Your task to perform on an android device: set an alarm Image 0: 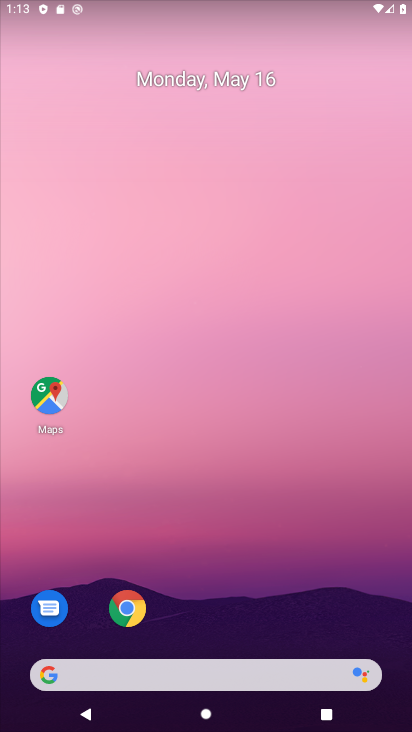
Step 0: drag from (219, 392) to (219, 130)
Your task to perform on an android device: set an alarm Image 1: 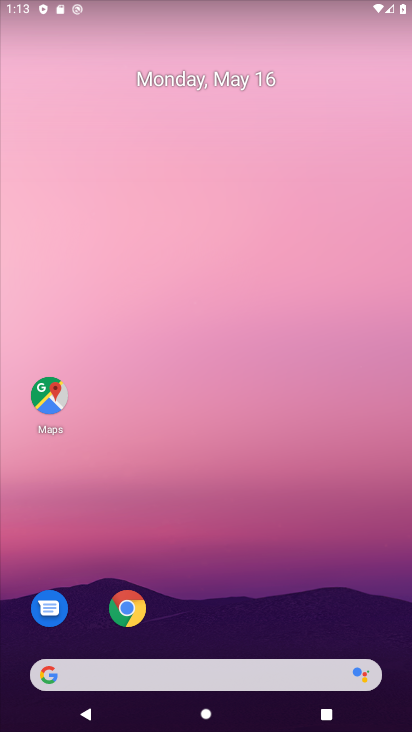
Step 1: drag from (283, 543) to (275, 81)
Your task to perform on an android device: set an alarm Image 2: 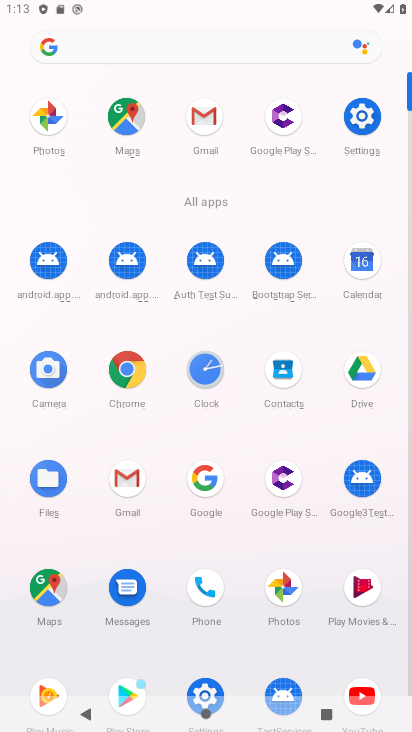
Step 2: click (195, 381)
Your task to perform on an android device: set an alarm Image 3: 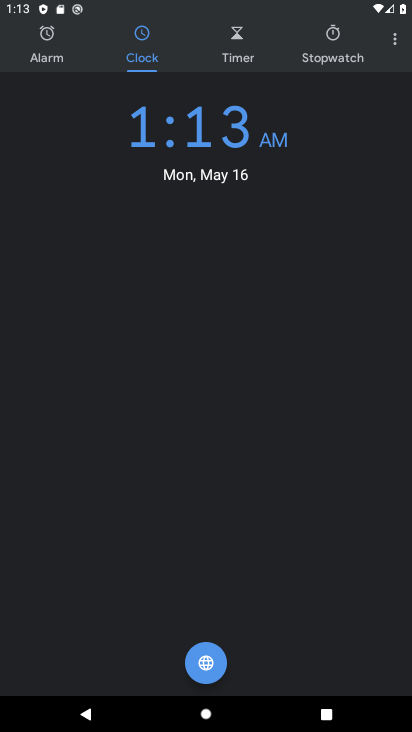
Step 3: click (45, 54)
Your task to perform on an android device: set an alarm Image 4: 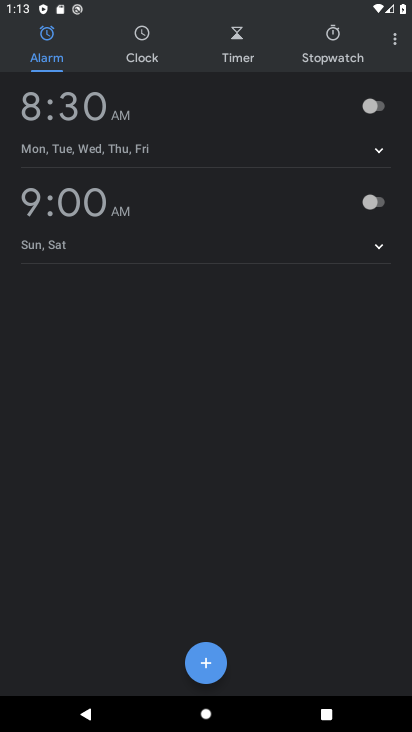
Step 4: click (202, 653)
Your task to perform on an android device: set an alarm Image 5: 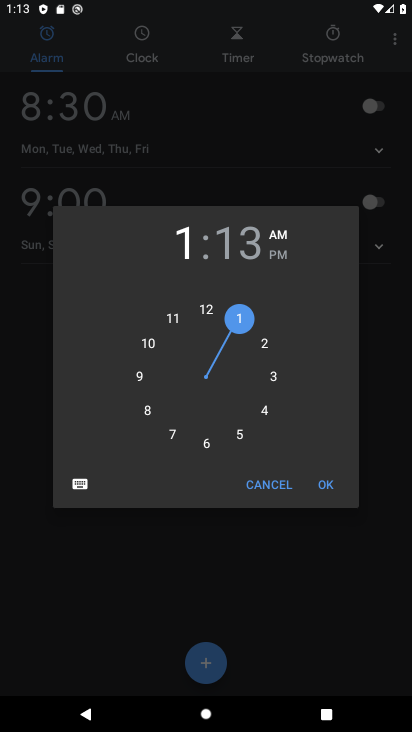
Step 5: click (319, 491)
Your task to perform on an android device: set an alarm Image 6: 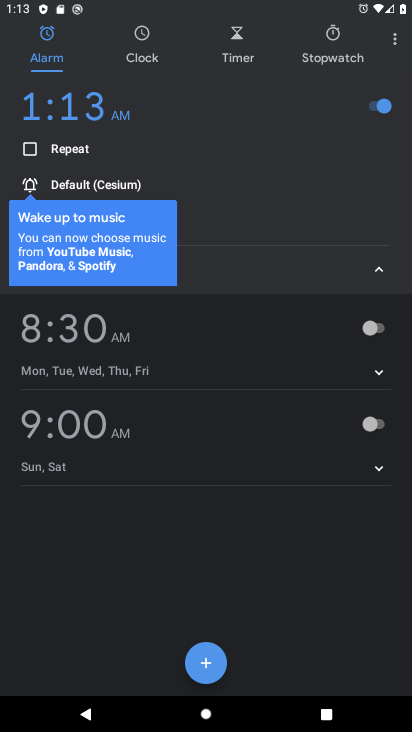
Step 6: task complete